Your task to perform on an android device: turn on notifications settings in the gmail app Image 0: 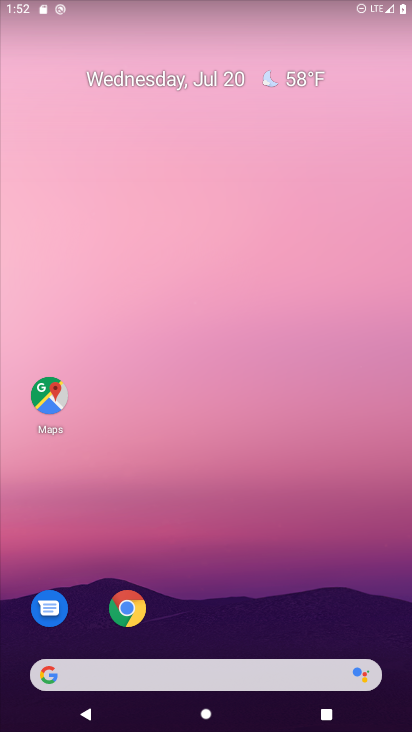
Step 0: drag from (239, 720) to (238, 112)
Your task to perform on an android device: turn on notifications settings in the gmail app Image 1: 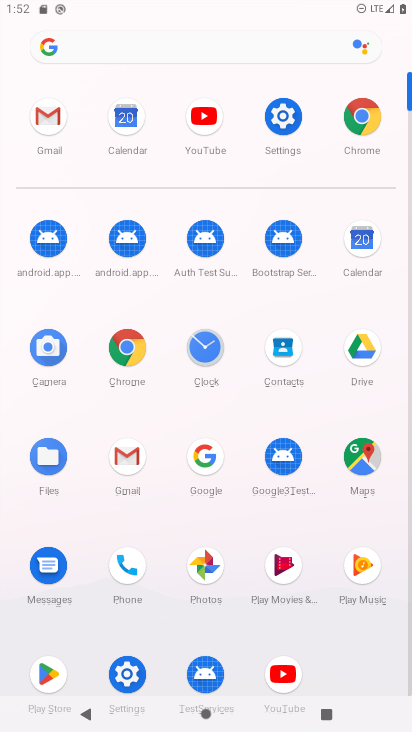
Step 1: click (134, 462)
Your task to perform on an android device: turn on notifications settings in the gmail app Image 2: 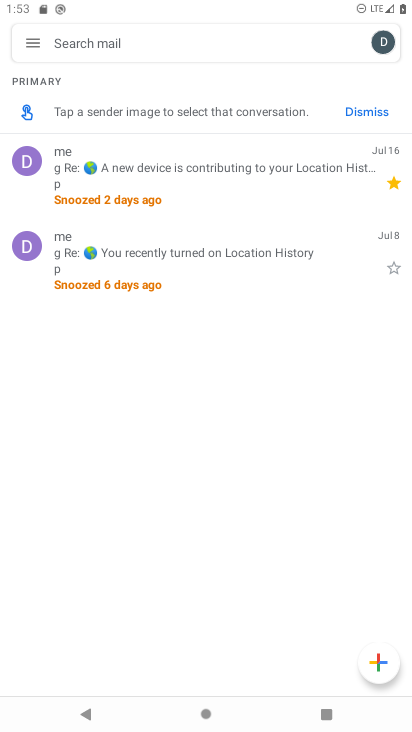
Step 2: click (33, 45)
Your task to perform on an android device: turn on notifications settings in the gmail app Image 3: 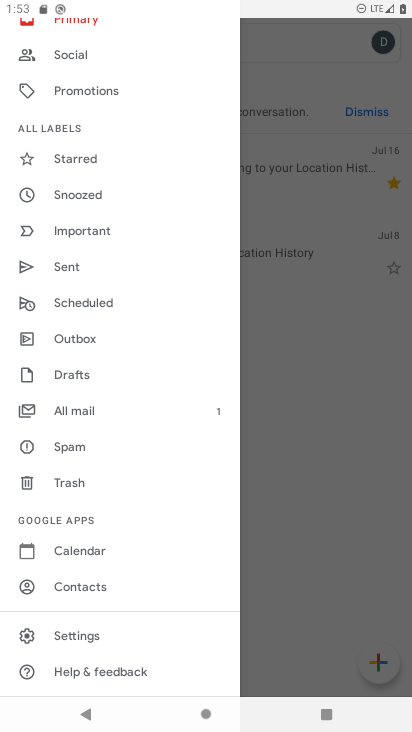
Step 3: click (83, 633)
Your task to perform on an android device: turn on notifications settings in the gmail app Image 4: 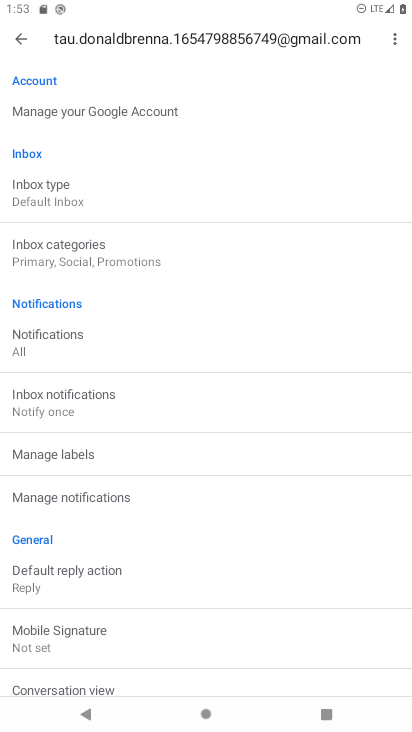
Step 4: task complete